Your task to perform on an android device: turn pop-ups on in chrome Image 0: 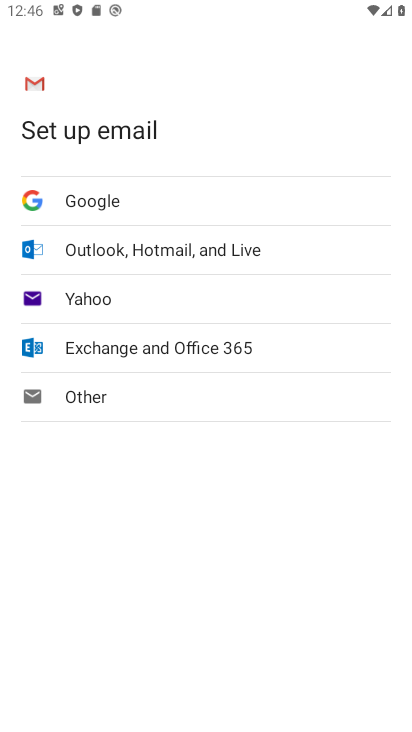
Step 0: press home button
Your task to perform on an android device: turn pop-ups on in chrome Image 1: 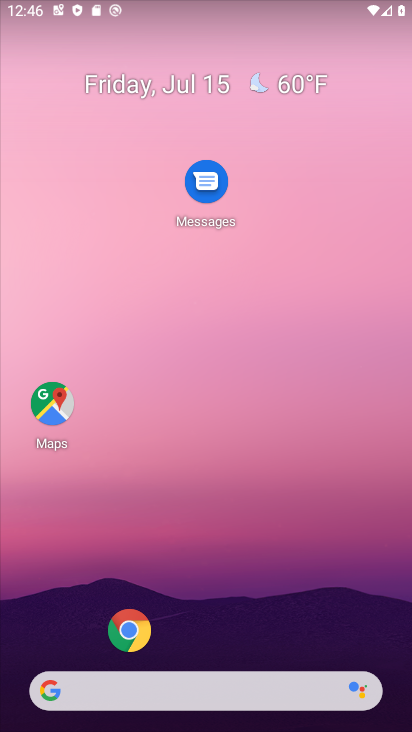
Step 1: drag from (50, 645) to (276, 80)
Your task to perform on an android device: turn pop-ups on in chrome Image 2: 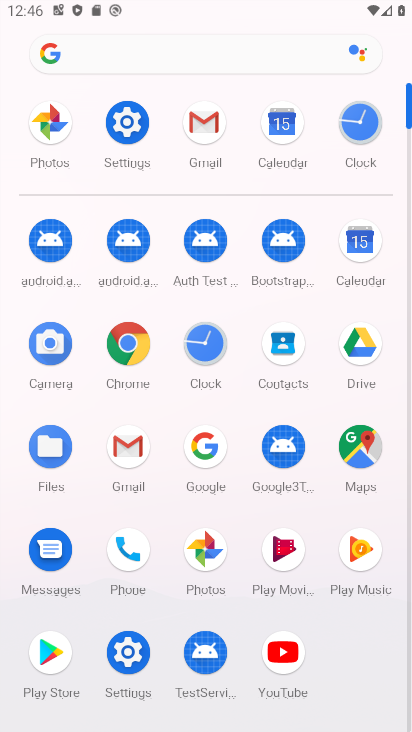
Step 2: click (116, 350)
Your task to perform on an android device: turn pop-ups on in chrome Image 3: 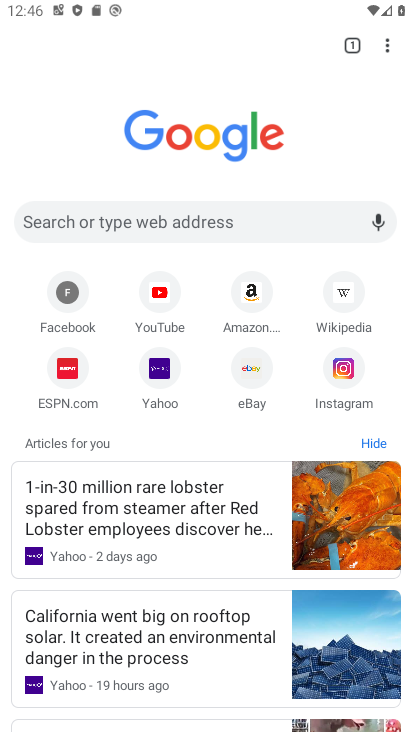
Step 3: click (392, 41)
Your task to perform on an android device: turn pop-ups on in chrome Image 4: 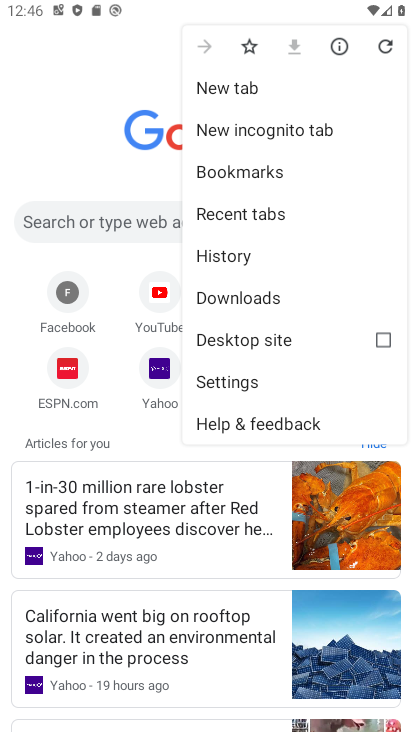
Step 4: click (227, 378)
Your task to perform on an android device: turn pop-ups on in chrome Image 5: 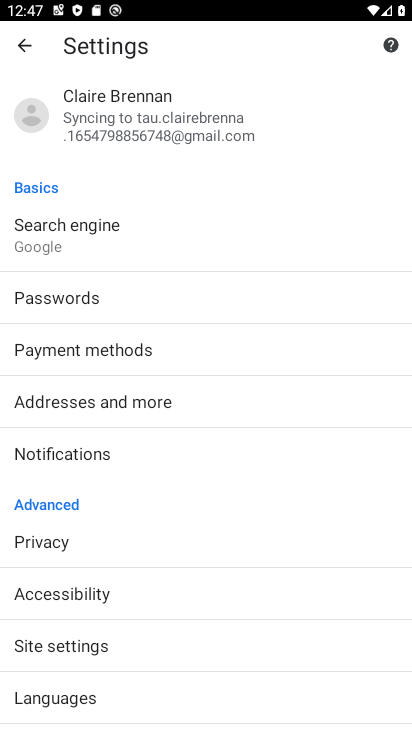
Step 5: click (80, 638)
Your task to perform on an android device: turn pop-ups on in chrome Image 6: 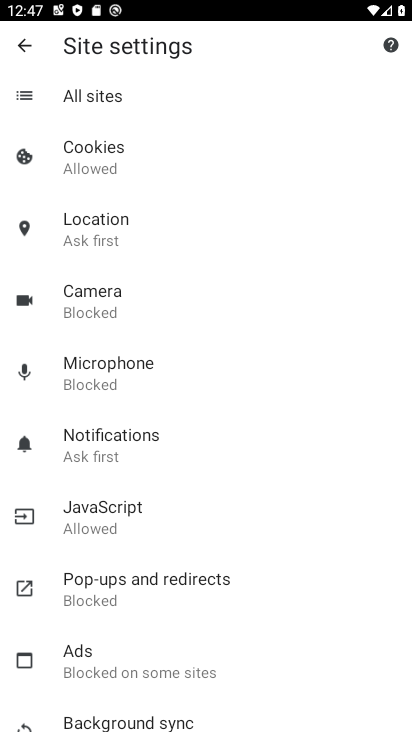
Step 6: click (126, 581)
Your task to perform on an android device: turn pop-ups on in chrome Image 7: 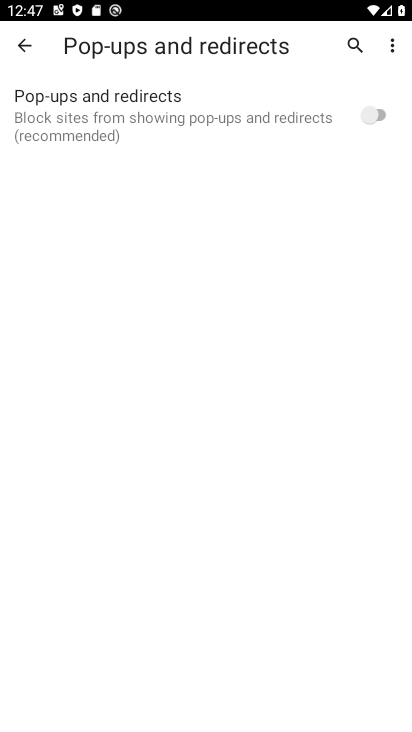
Step 7: click (364, 111)
Your task to perform on an android device: turn pop-ups on in chrome Image 8: 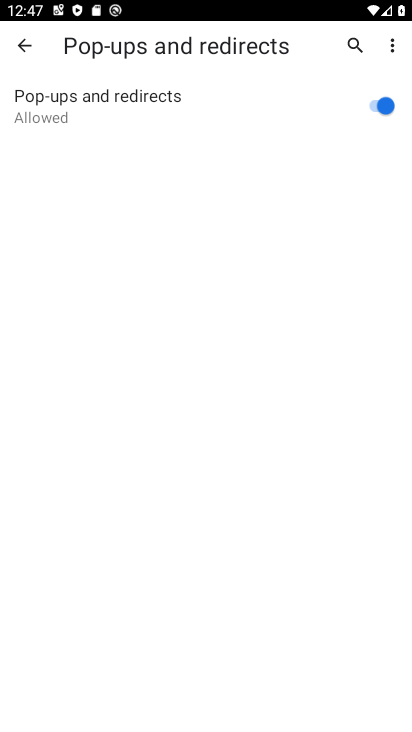
Step 8: task complete